Your task to perform on an android device: Search for the best selling video games at Target Image 0: 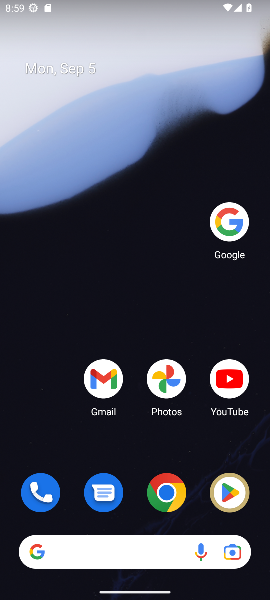
Step 0: click (231, 218)
Your task to perform on an android device: Search for the best selling video games at Target Image 1: 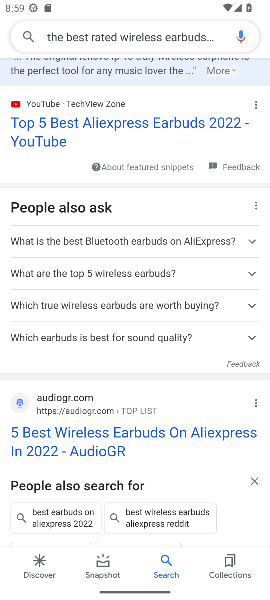
Step 1: click (168, 26)
Your task to perform on an android device: Search for the best selling video games at Target Image 2: 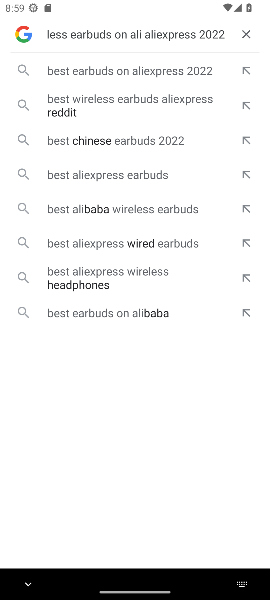
Step 2: click (247, 33)
Your task to perform on an android device: Search for the best selling video games at Target Image 3: 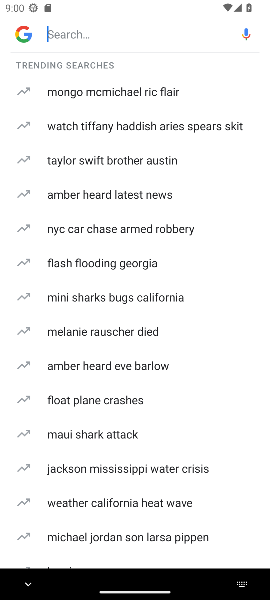
Step 3: click (87, 38)
Your task to perform on an android device: Search for the best selling video games at Target Image 4: 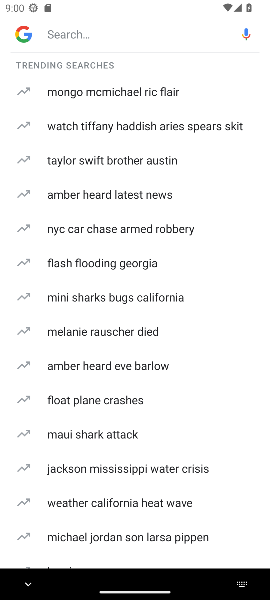
Step 4: type "the best selling video games at Target "
Your task to perform on an android device: Search for the best selling video games at Target Image 5: 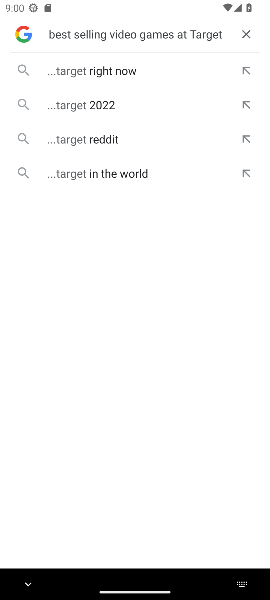
Step 5: click (98, 69)
Your task to perform on an android device: Search for the best selling video games at Target Image 6: 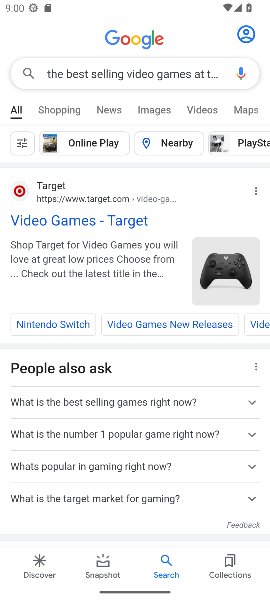
Step 6: task complete